Your task to perform on an android device: Find coffee shops on Maps Image 0: 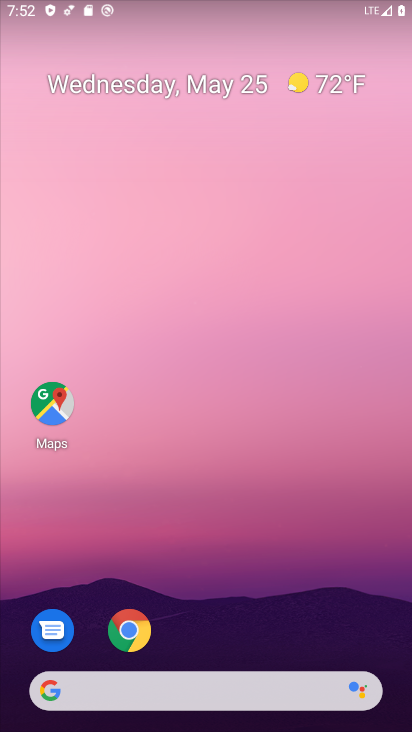
Step 0: click (49, 408)
Your task to perform on an android device: Find coffee shops on Maps Image 1: 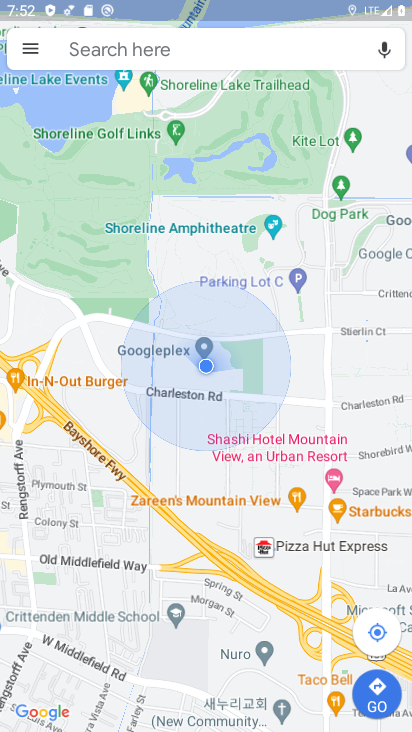
Step 1: click (143, 56)
Your task to perform on an android device: Find coffee shops on Maps Image 2: 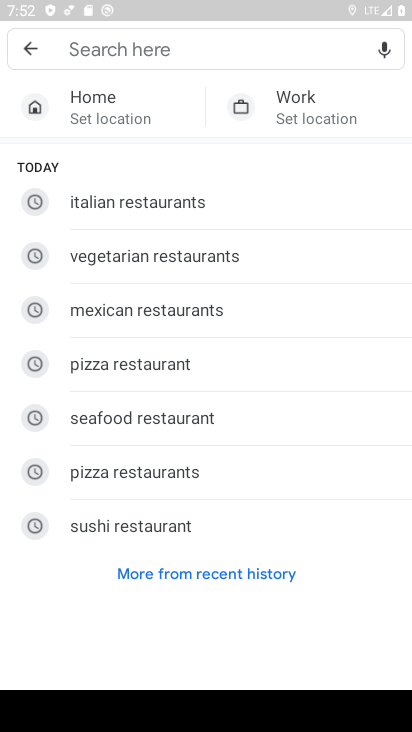
Step 2: type "coffee shops"
Your task to perform on an android device: Find coffee shops on Maps Image 3: 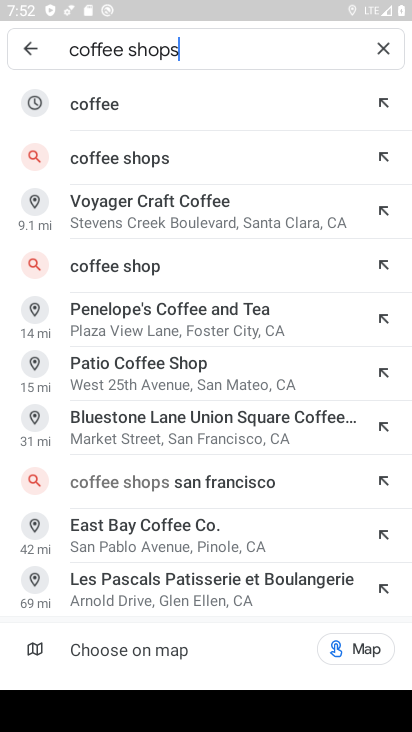
Step 3: click (144, 146)
Your task to perform on an android device: Find coffee shops on Maps Image 4: 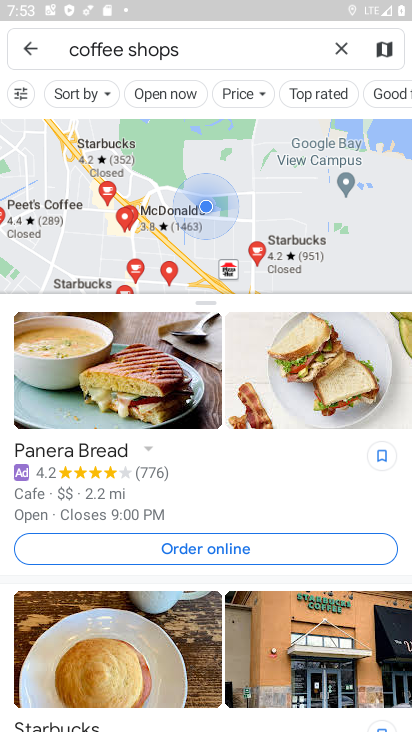
Step 4: task complete